Your task to perform on an android device: open app "eBay: The shopping marketplace" (install if not already installed) Image 0: 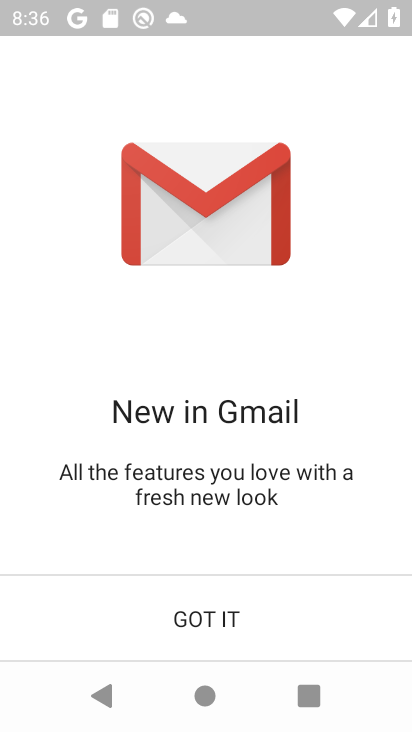
Step 0: press back button
Your task to perform on an android device: open app "eBay: The shopping marketplace" (install if not already installed) Image 1: 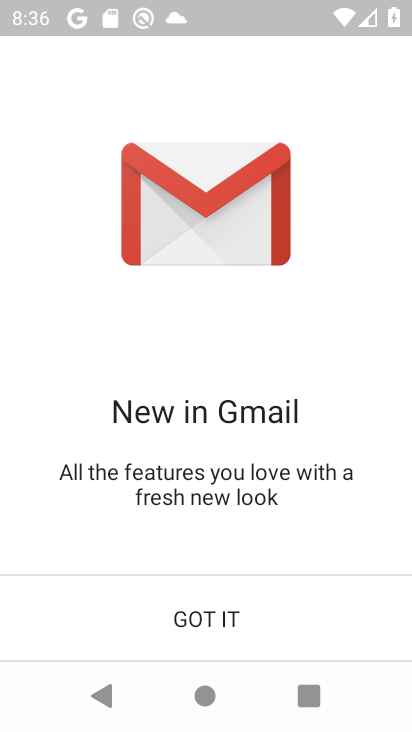
Step 1: press back button
Your task to perform on an android device: open app "eBay: The shopping marketplace" (install if not already installed) Image 2: 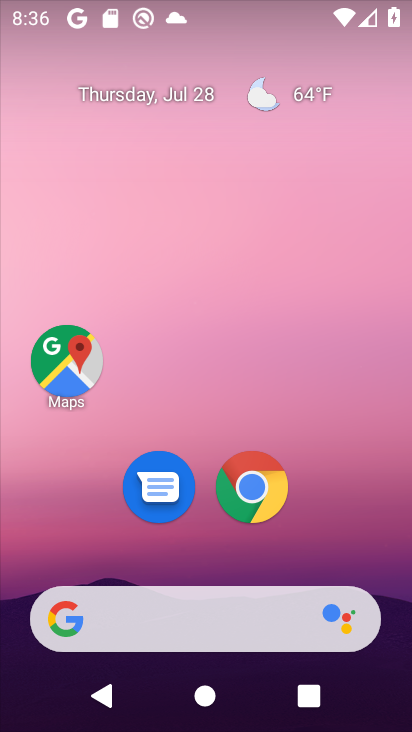
Step 2: drag from (297, 687) to (232, 122)
Your task to perform on an android device: open app "eBay: The shopping marketplace" (install if not already installed) Image 3: 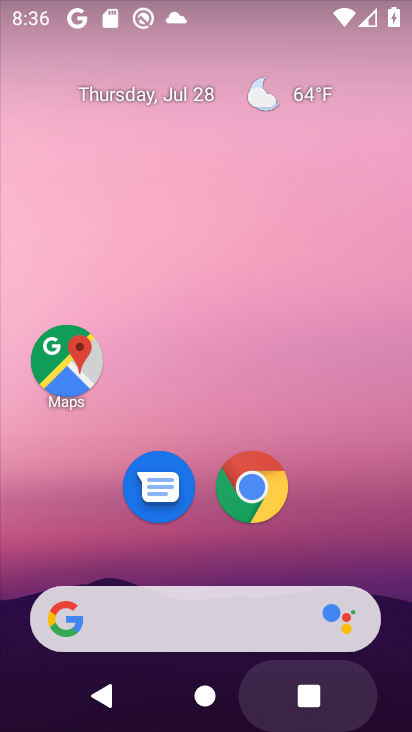
Step 3: drag from (250, 383) to (292, 76)
Your task to perform on an android device: open app "eBay: The shopping marketplace" (install if not already installed) Image 4: 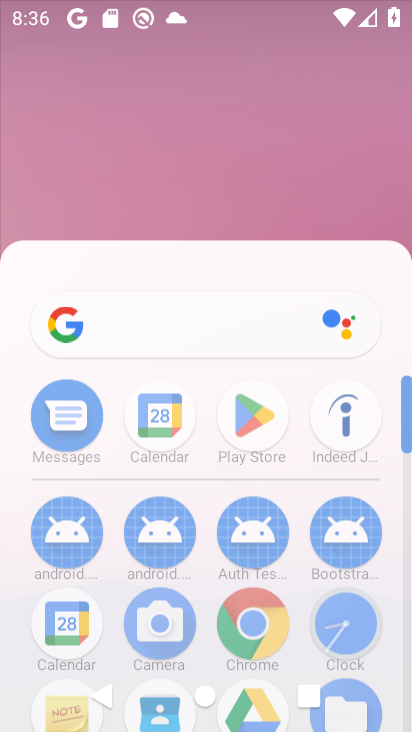
Step 4: drag from (274, 417) to (209, 221)
Your task to perform on an android device: open app "eBay: The shopping marketplace" (install if not already installed) Image 5: 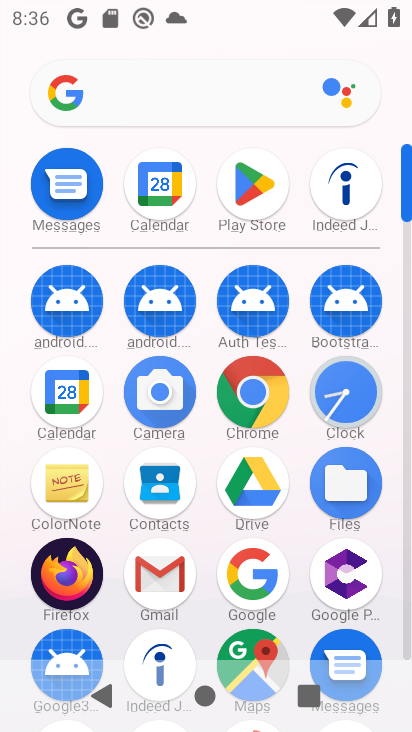
Step 5: click (247, 191)
Your task to perform on an android device: open app "eBay: The shopping marketplace" (install if not already installed) Image 6: 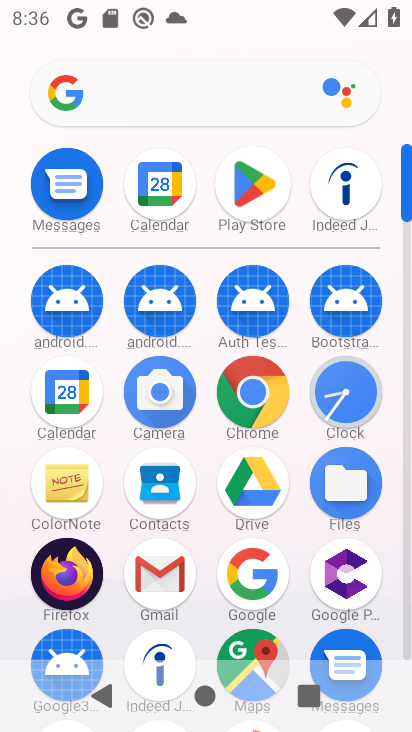
Step 6: click (247, 191)
Your task to perform on an android device: open app "eBay: The shopping marketplace" (install if not already installed) Image 7: 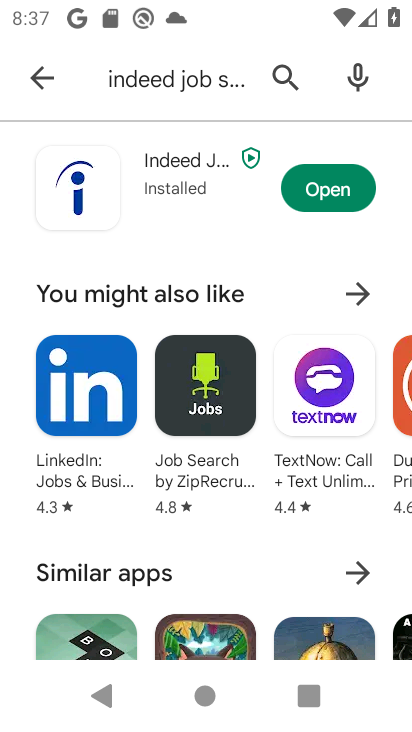
Step 7: click (37, 74)
Your task to perform on an android device: open app "eBay: The shopping marketplace" (install if not already installed) Image 8: 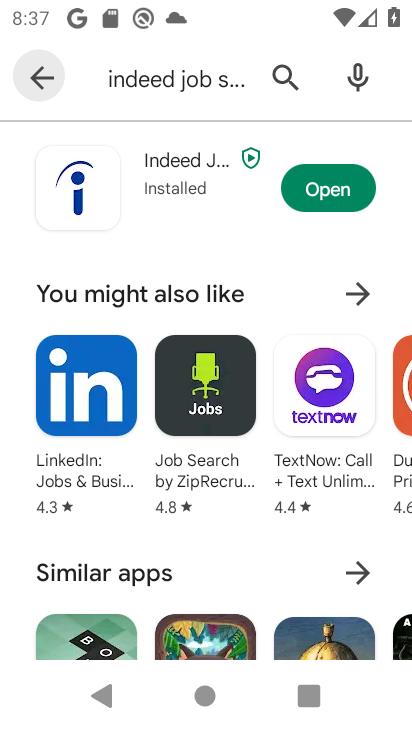
Step 8: click (38, 75)
Your task to perform on an android device: open app "eBay: The shopping marketplace" (install if not already installed) Image 9: 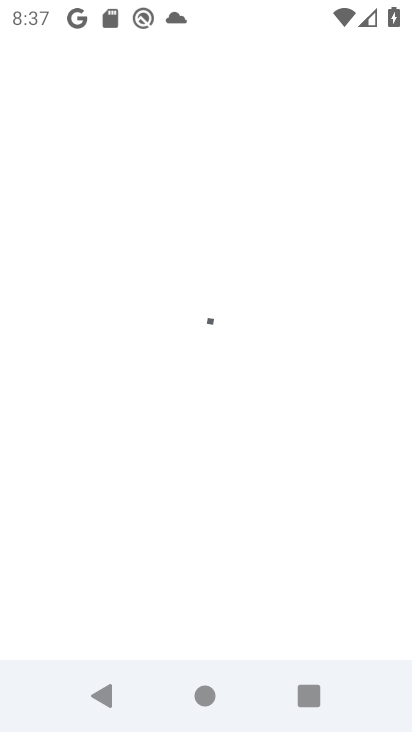
Step 9: click (39, 77)
Your task to perform on an android device: open app "eBay: The shopping marketplace" (install if not already installed) Image 10: 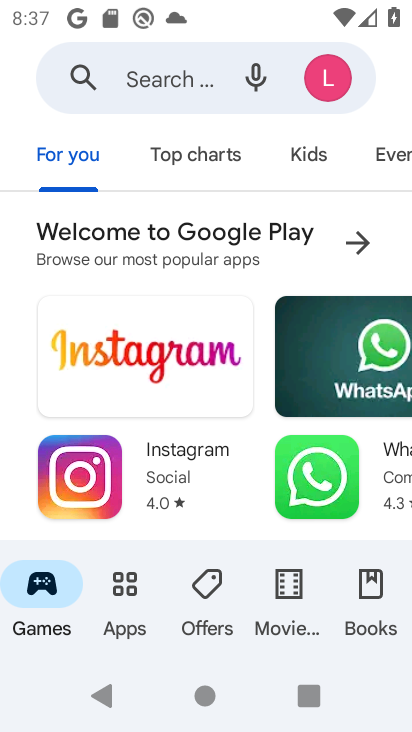
Step 10: click (141, 73)
Your task to perform on an android device: open app "eBay: The shopping marketplace" (install if not already installed) Image 11: 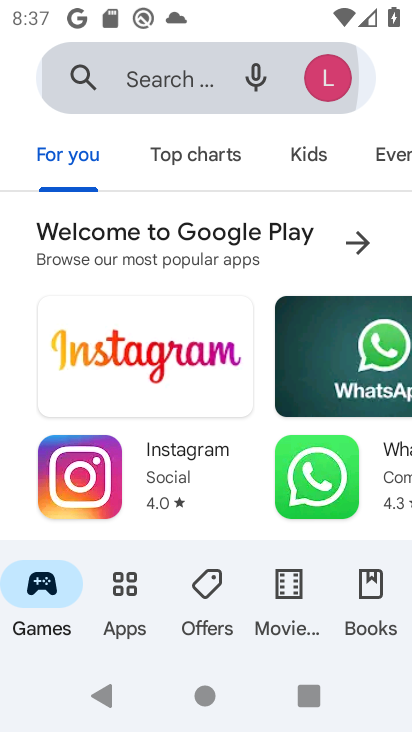
Step 11: click (142, 72)
Your task to perform on an android device: open app "eBay: The shopping marketplace" (install if not already installed) Image 12: 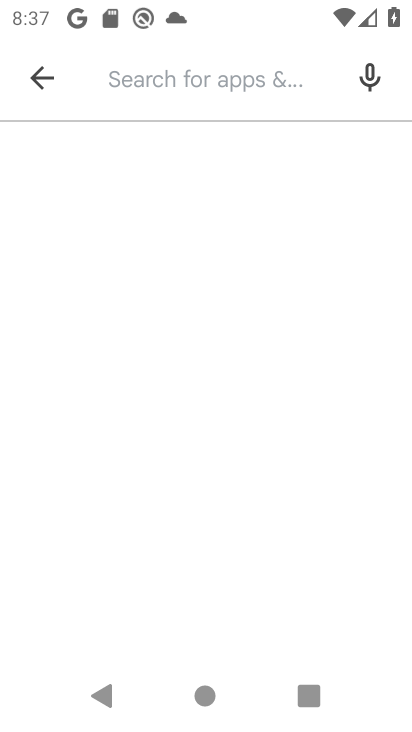
Step 12: click (143, 77)
Your task to perform on an android device: open app "eBay: The shopping marketplace" (install if not already installed) Image 13: 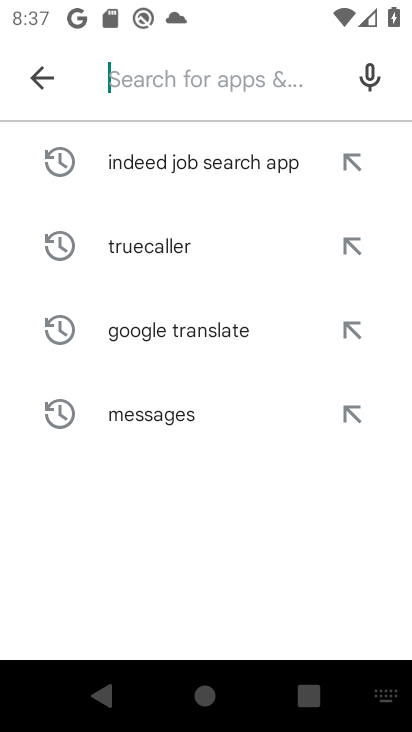
Step 13: click (143, 85)
Your task to perform on an android device: open app "eBay: The shopping marketplace" (install if not already installed) Image 14: 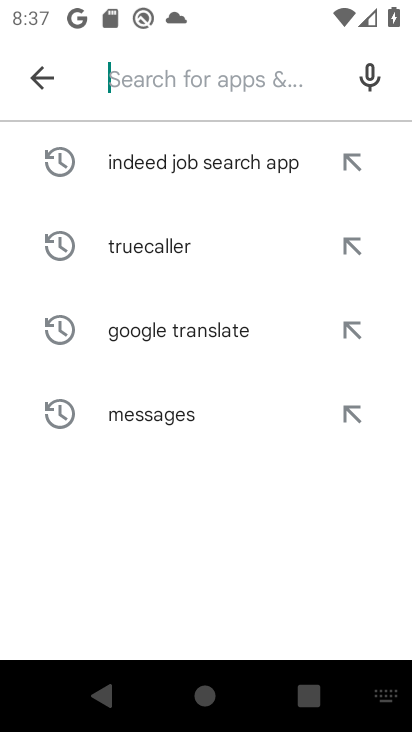
Step 14: type "ebay: the shopping marketplace"
Your task to perform on an android device: open app "eBay: The shopping marketplace" (install if not already installed) Image 15: 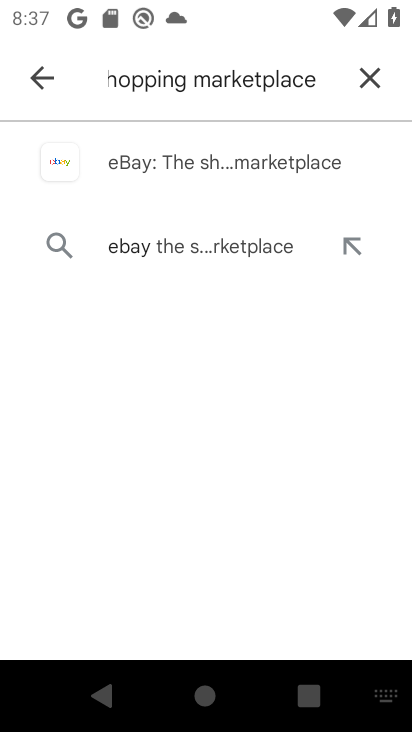
Step 15: click (282, 163)
Your task to perform on an android device: open app "eBay: The shopping marketplace" (install if not already installed) Image 16: 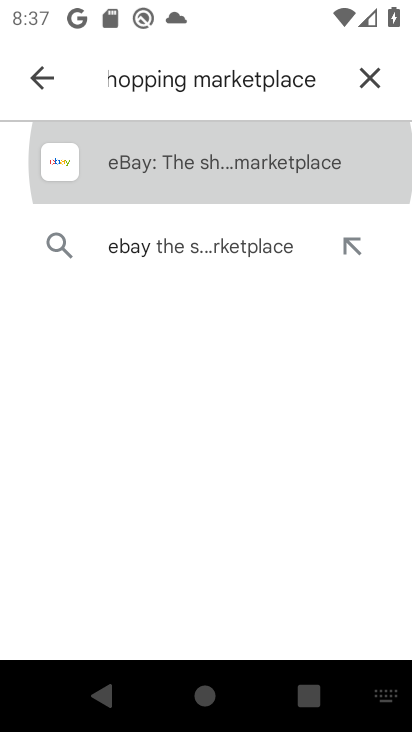
Step 16: click (282, 163)
Your task to perform on an android device: open app "eBay: The shopping marketplace" (install if not already installed) Image 17: 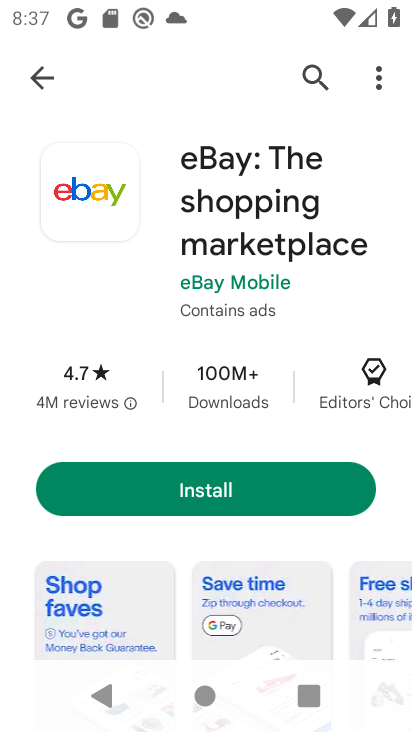
Step 17: click (229, 485)
Your task to perform on an android device: open app "eBay: The shopping marketplace" (install if not already installed) Image 18: 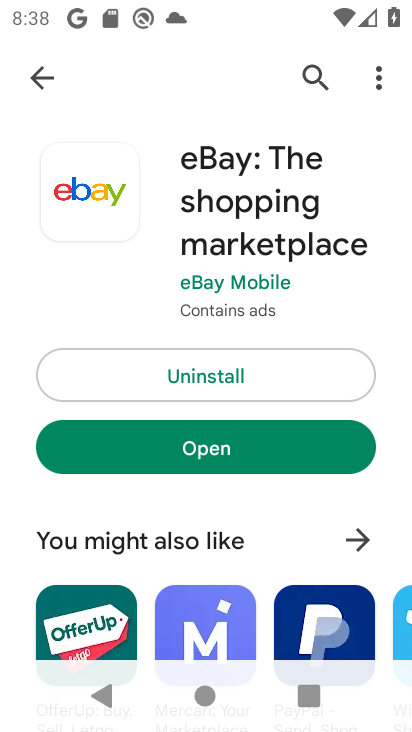
Step 18: click (215, 444)
Your task to perform on an android device: open app "eBay: The shopping marketplace" (install if not already installed) Image 19: 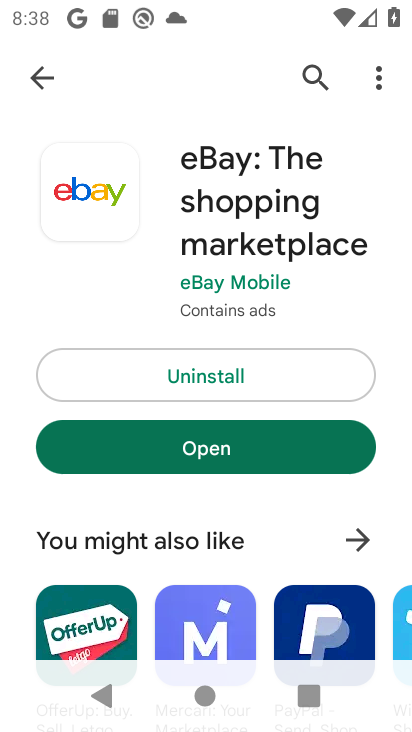
Step 19: click (215, 444)
Your task to perform on an android device: open app "eBay: The shopping marketplace" (install if not already installed) Image 20: 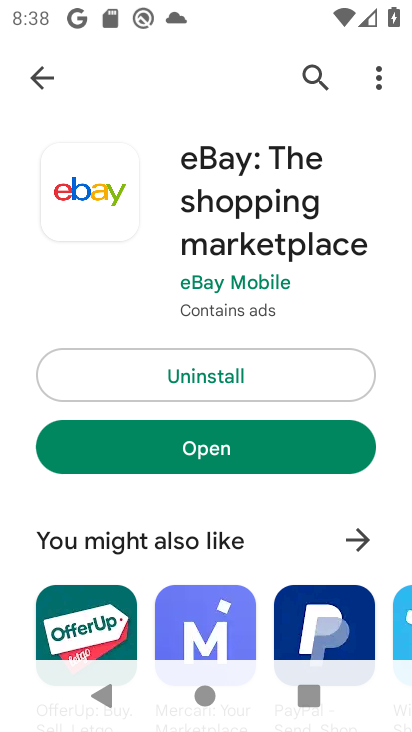
Step 20: click (214, 446)
Your task to perform on an android device: open app "eBay: The shopping marketplace" (install if not already installed) Image 21: 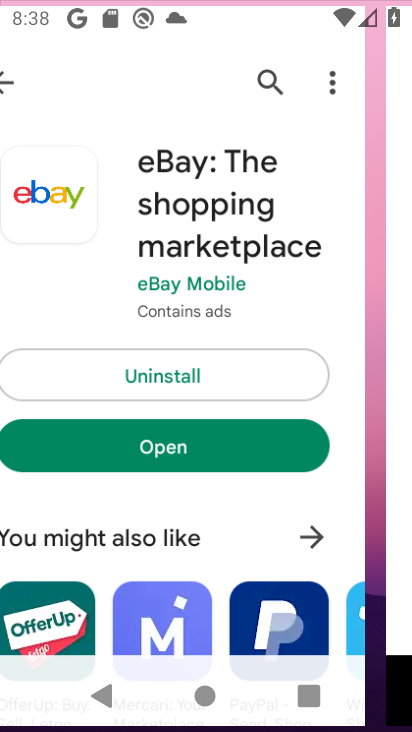
Step 21: click (218, 447)
Your task to perform on an android device: open app "eBay: The shopping marketplace" (install if not already installed) Image 22: 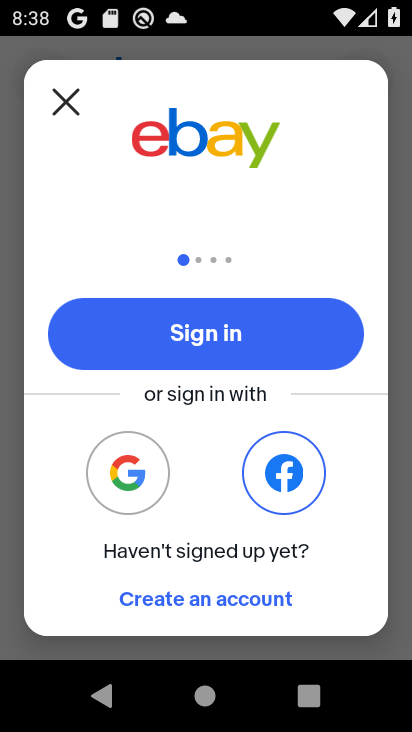
Step 22: click (69, 95)
Your task to perform on an android device: open app "eBay: The shopping marketplace" (install if not already installed) Image 23: 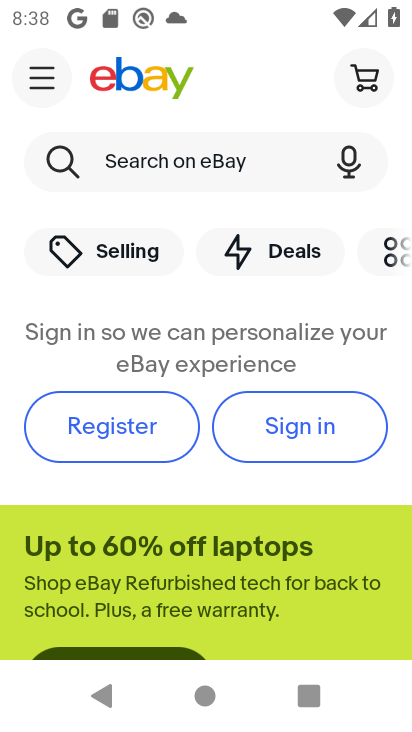
Step 23: task complete